Your task to perform on an android device: refresh tabs in the chrome app Image 0: 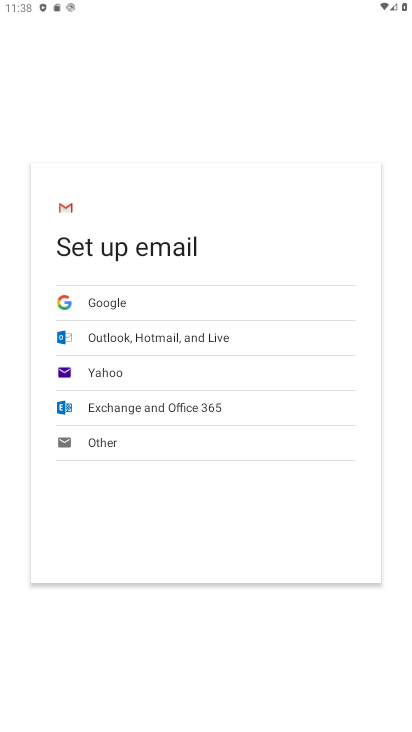
Step 0: press home button
Your task to perform on an android device: refresh tabs in the chrome app Image 1: 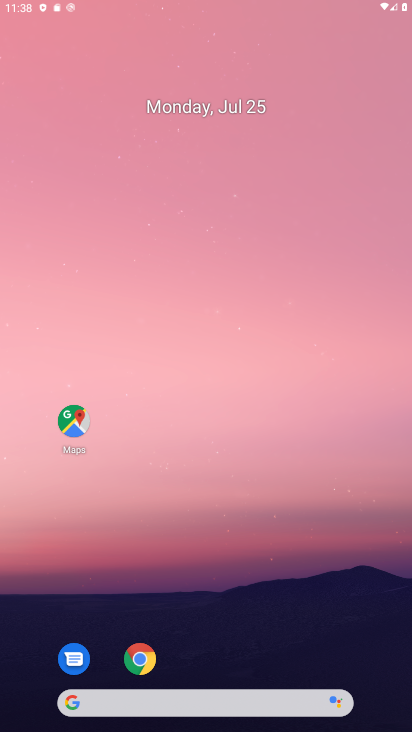
Step 1: drag from (312, 588) to (315, 544)
Your task to perform on an android device: refresh tabs in the chrome app Image 2: 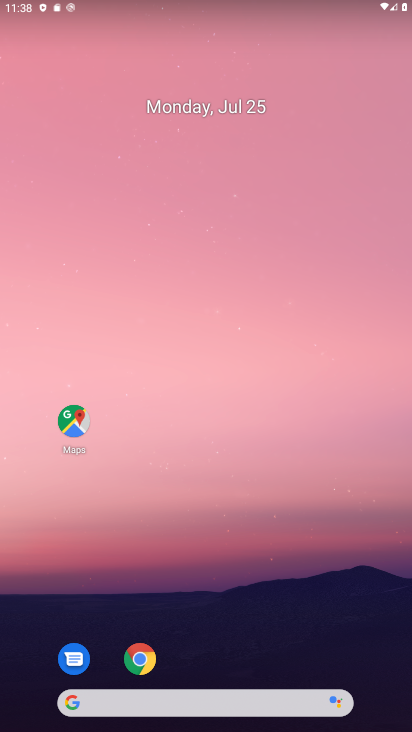
Step 2: drag from (390, 689) to (388, 3)
Your task to perform on an android device: refresh tabs in the chrome app Image 3: 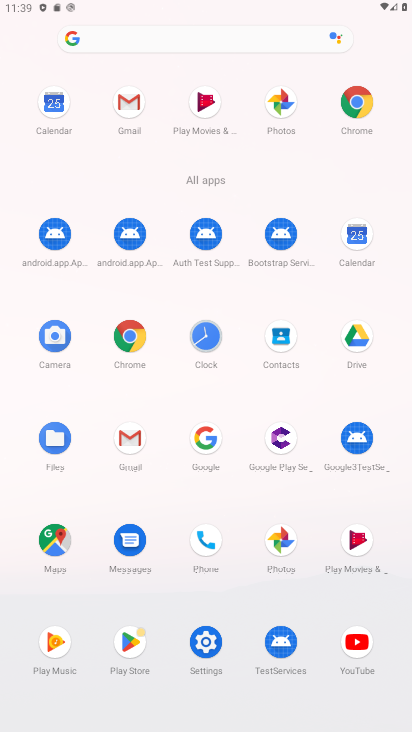
Step 3: click (367, 98)
Your task to perform on an android device: refresh tabs in the chrome app Image 4: 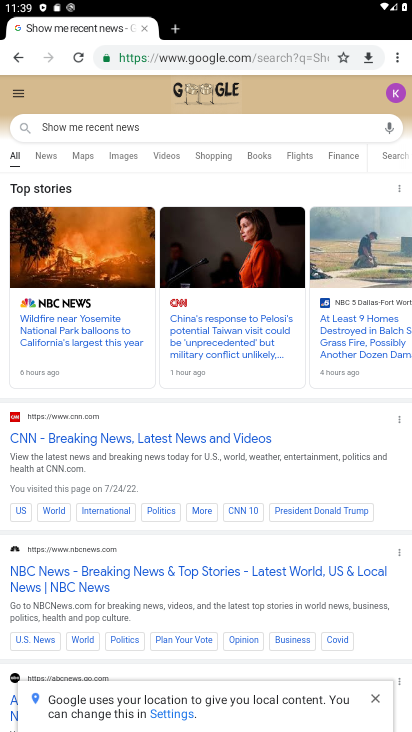
Step 4: click (79, 60)
Your task to perform on an android device: refresh tabs in the chrome app Image 5: 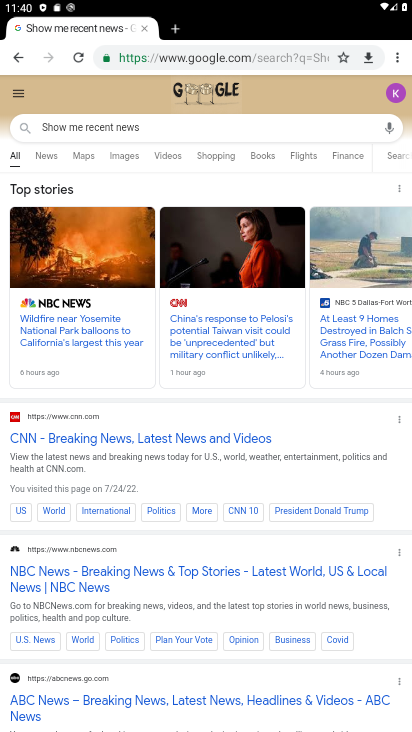
Step 5: task complete